Your task to perform on an android device: check data usage Image 0: 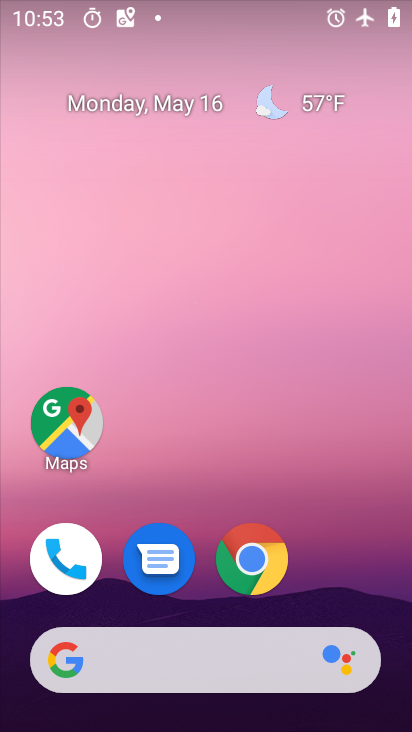
Step 0: drag from (323, 517) to (342, 150)
Your task to perform on an android device: check data usage Image 1: 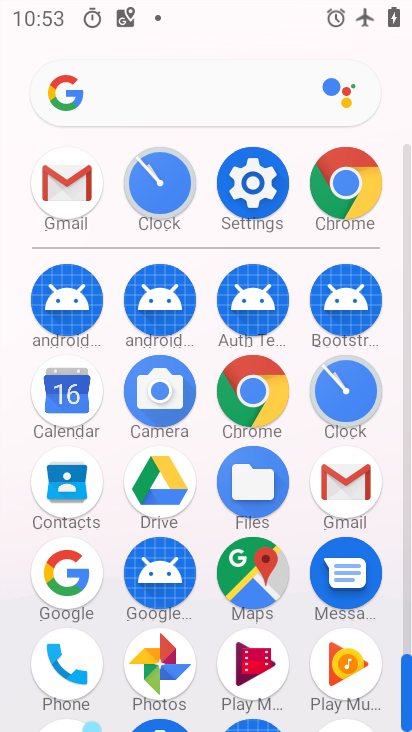
Step 1: click (266, 176)
Your task to perform on an android device: check data usage Image 2: 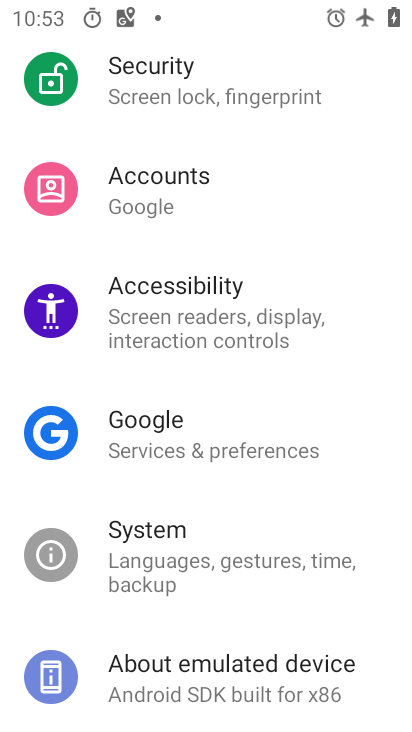
Step 2: drag from (280, 207) to (225, 448)
Your task to perform on an android device: check data usage Image 3: 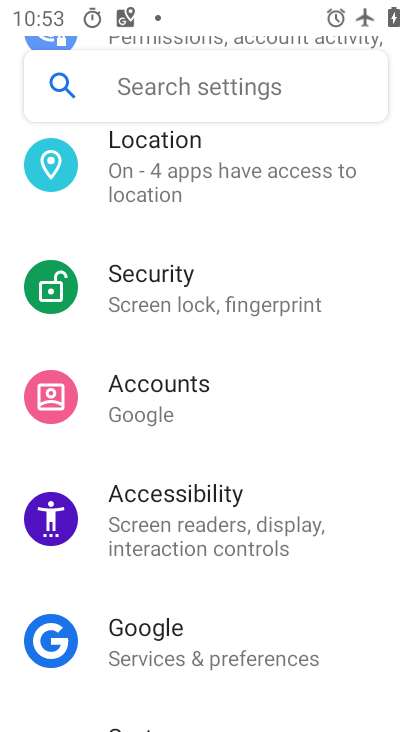
Step 3: drag from (282, 186) to (240, 432)
Your task to perform on an android device: check data usage Image 4: 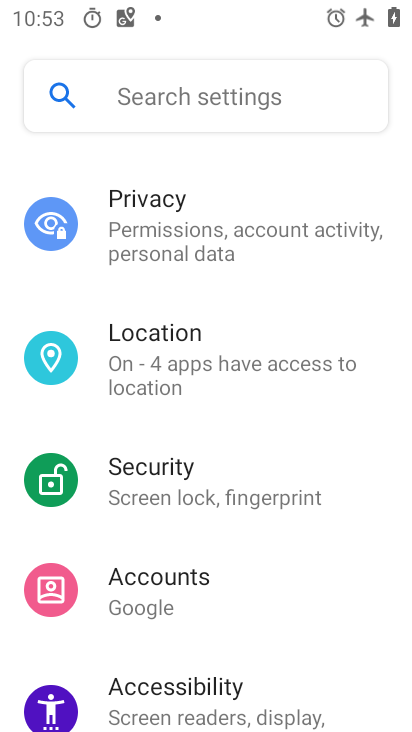
Step 4: drag from (239, 413) to (230, 647)
Your task to perform on an android device: check data usage Image 5: 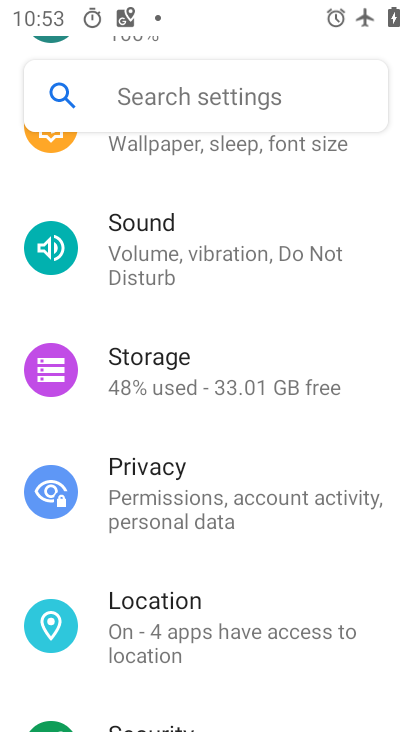
Step 5: click (220, 384)
Your task to perform on an android device: check data usage Image 6: 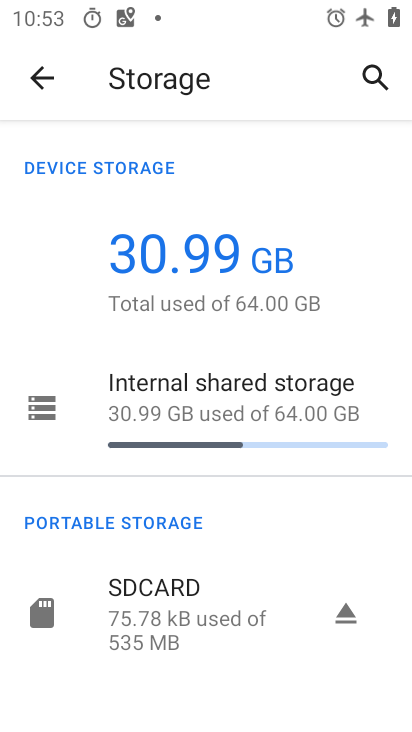
Step 6: click (28, 68)
Your task to perform on an android device: check data usage Image 7: 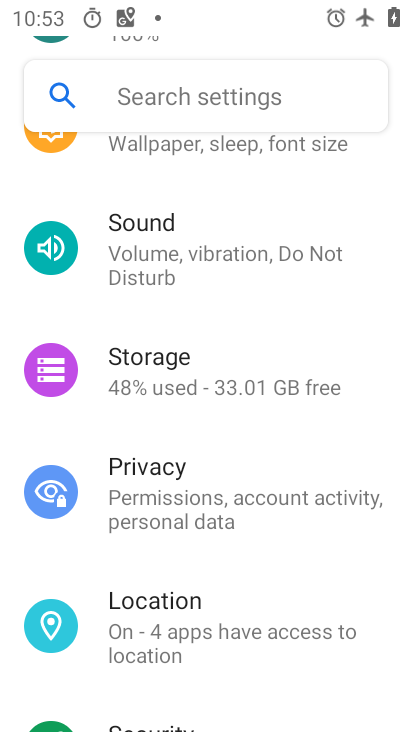
Step 7: drag from (271, 237) to (223, 553)
Your task to perform on an android device: check data usage Image 8: 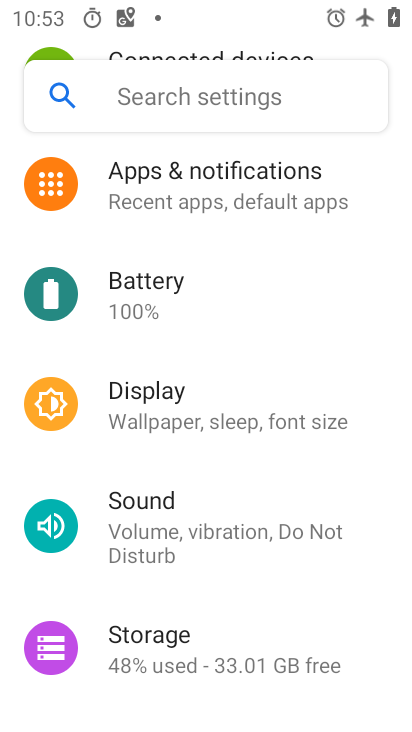
Step 8: drag from (238, 275) to (204, 519)
Your task to perform on an android device: check data usage Image 9: 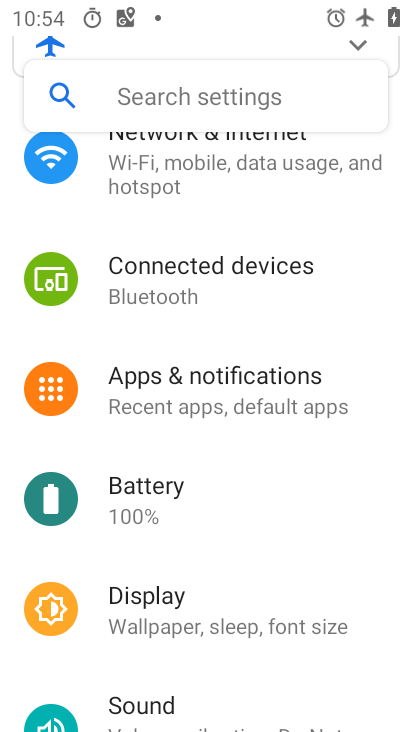
Step 9: drag from (312, 251) to (180, 534)
Your task to perform on an android device: check data usage Image 10: 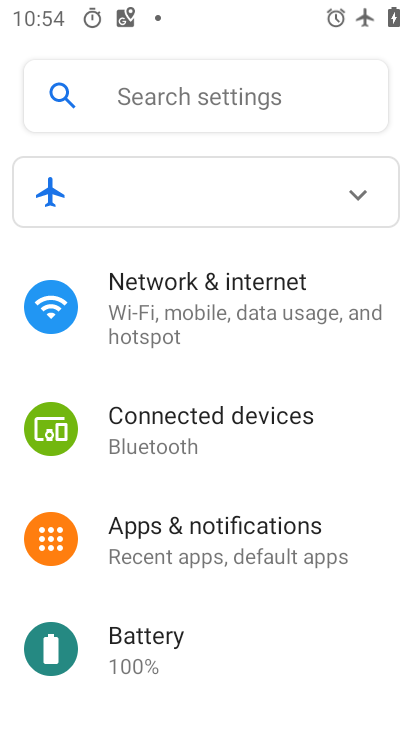
Step 10: click (254, 310)
Your task to perform on an android device: check data usage Image 11: 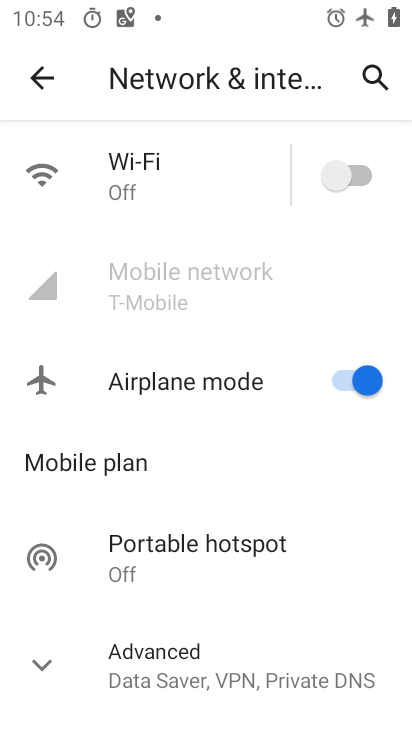
Step 11: click (200, 187)
Your task to perform on an android device: check data usage Image 12: 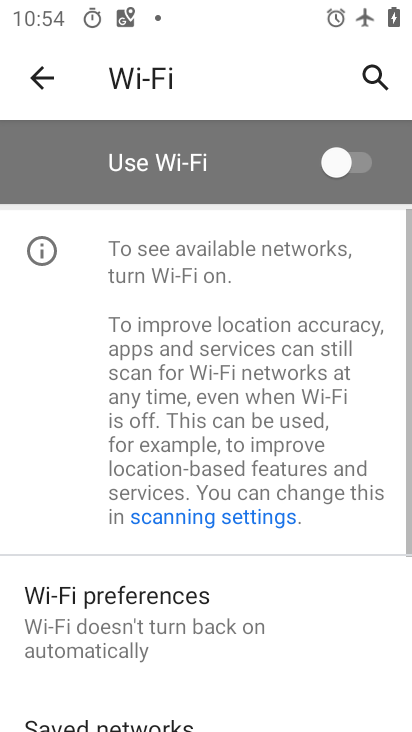
Step 12: drag from (213, 611) to (249, 113)
Your task to perform on an android device: check data usage Image 13: 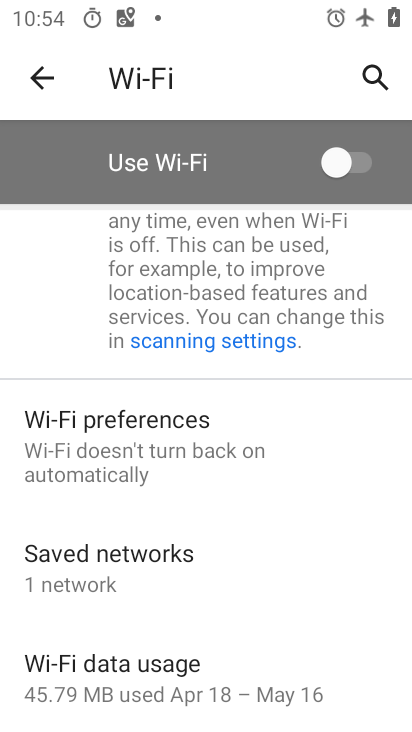
Step 13: click (119, 683)
Your task to perform on an android device: check data usage Image 14: 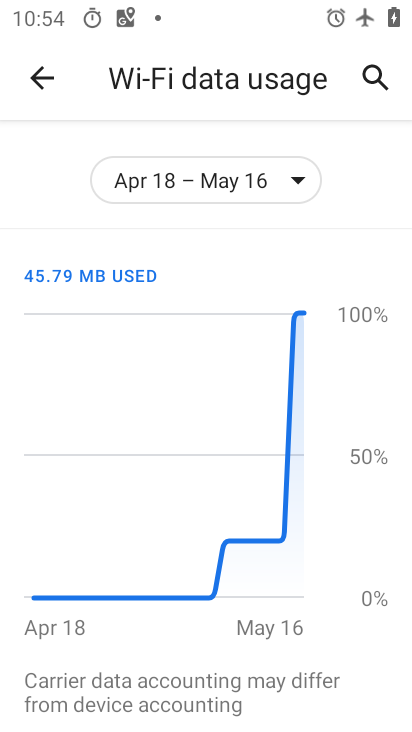
Step 14: task complete